Your task to perform on an android device: toggle pop-ups in chrome Image 0: 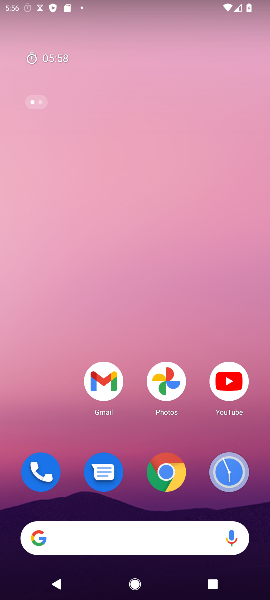
Step 0: press home button
Your task to perform on an android device: toggle pop-ups in chrome Image 1: 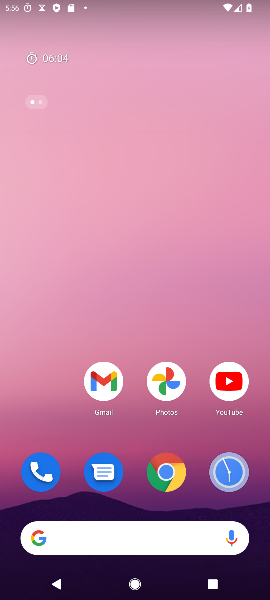
Step 1: click (160, 472)
Your task to perform on an android device: toggle pop-ups in chrome Image 2: 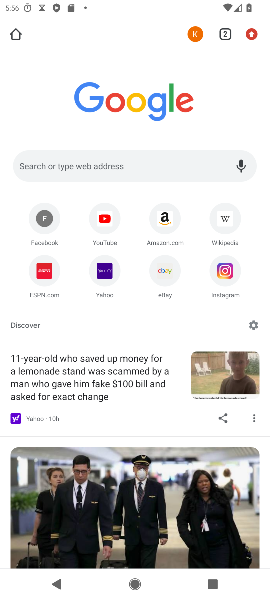
Step 2: drag from (251, 35) to (168, 350)
Your task to perform on an android device: toggle pop-ups in chrome Image 3: 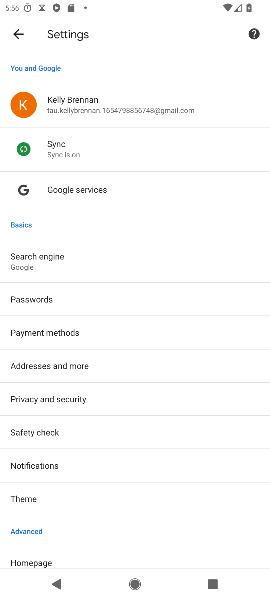
Step 3: drag from (181, 424) to (99, 11)
Your task to perform on an android device: toggle pop-ups in chrome Image 4: 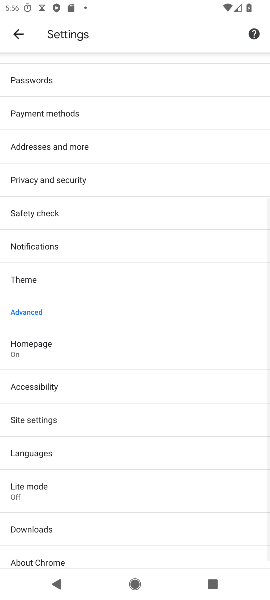
Step 4: click (24, 421)
Your task to perform on an android device: toggle pop-ups in chrome Image 5: 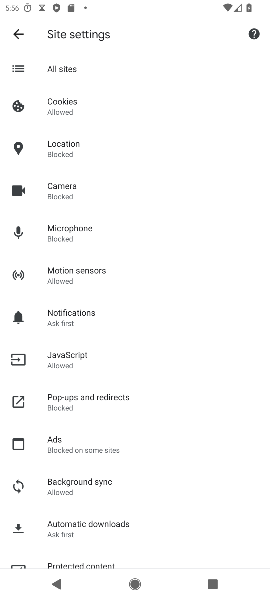
Step 5: click (78, 397)
Your task to perform on an android device: toggle pop-ups in chrome Image 6: 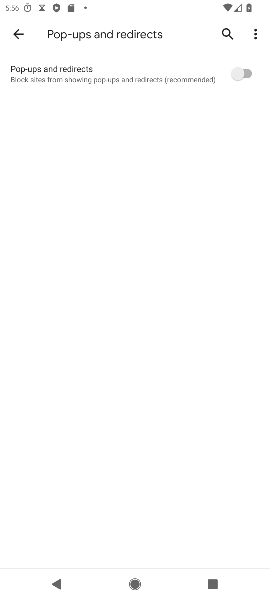
Step 6: click (238, 68)
Your task to perform on an android device: toggle pop-ups in chrome Image 7: 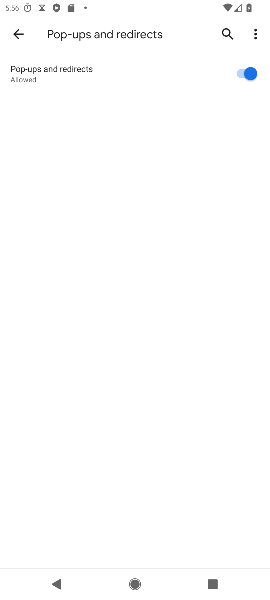
Step 7: task complete